Your task to perform on an android device: open chrome and create a bookmark for the current page Image 0: 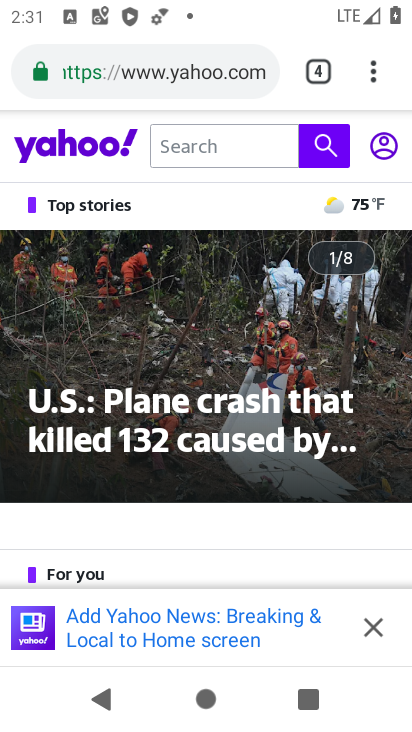
Step 0: click (369, 72)
Your task to perform on an android device: open chrome and create a bookmark for the current page Image 1: 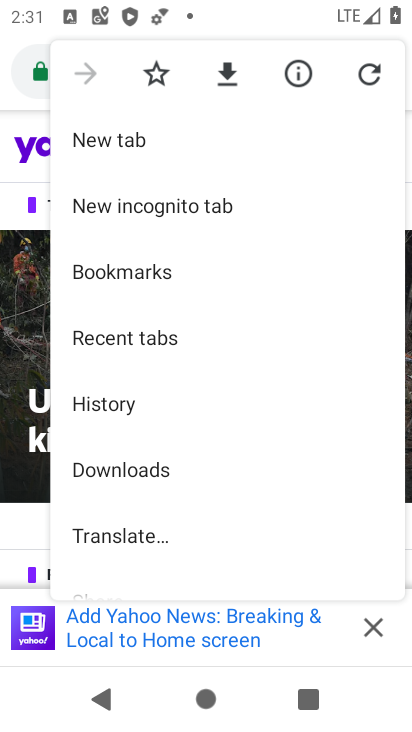
Step 1: click (155, 67)
Your task to perform on an android device: open chrome and create a bookmark for the current page Image 2: 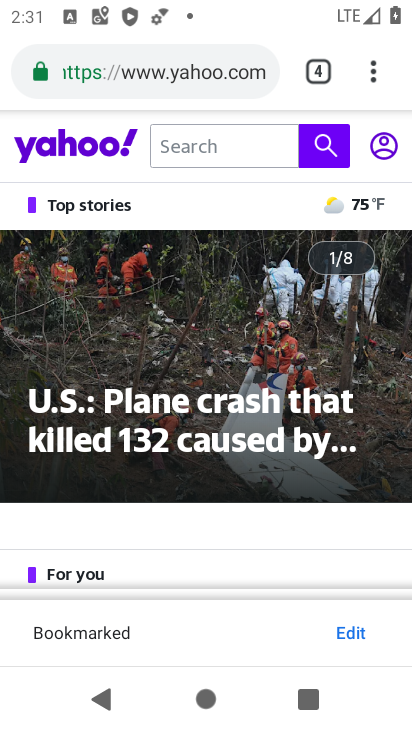
Step 2: task complete